Your task to perform on an android device: open chrome and create a bookmark for the current page Image 0: 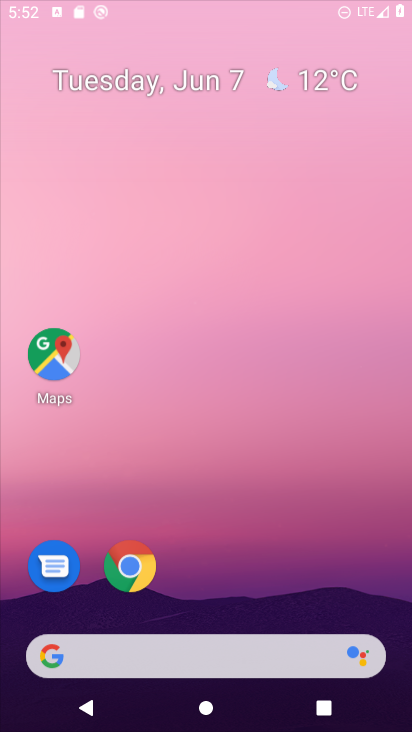
Step 0: click (376, 13)
Your task to perform on an android device: open chrome and create a bookmark for the current page Image 1: 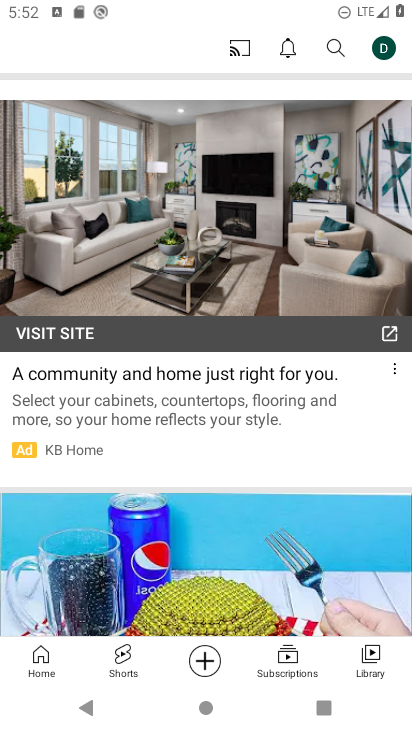
Step 1: press home button
Your task to perform on an android device: open chrome and create a bookmark for the current page Image 2: 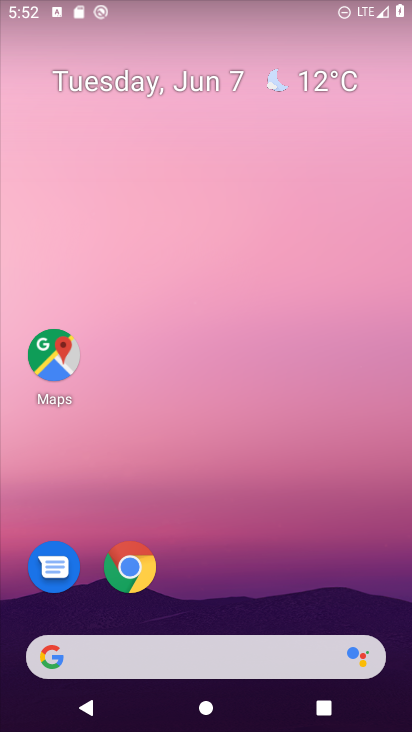
Step 2: drag from (186, 677) to (290, 75)
Your task to perform on an android device: open chrome and create a bookmark for the current page Image 3: 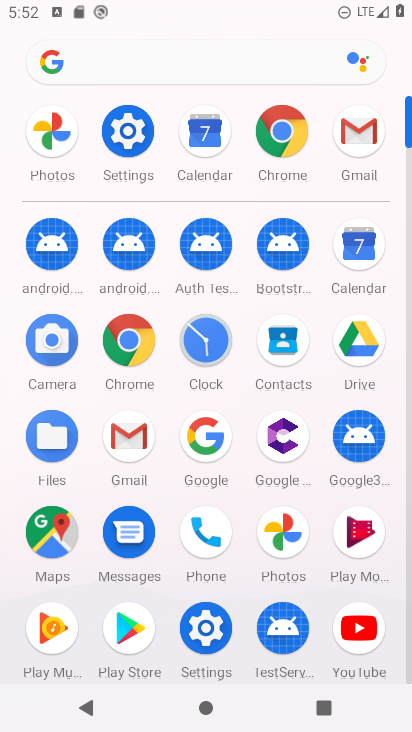
Step 3: click (139, 350)
Your task to perform on an android device: open chrome and create a bookmark for the current page Image 4: 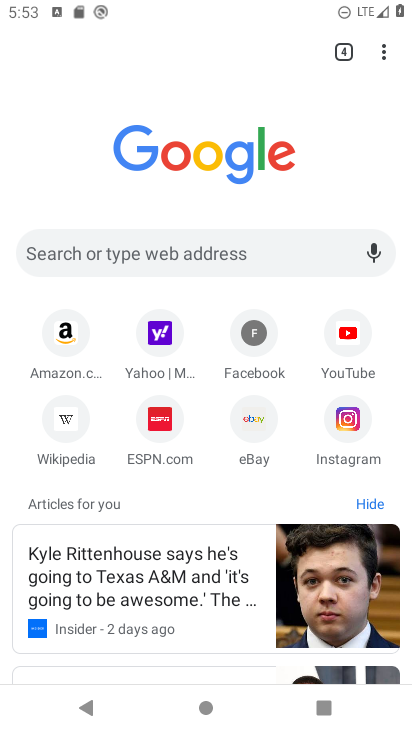
Step 4: click (373, 40)
Your task to perform on an android device: open chrome and create a bookmark for the current page Image 5: 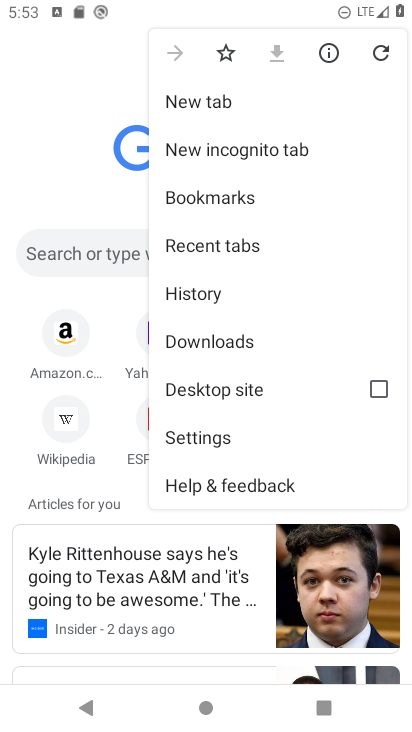
Step 5: click (255, 196)
Your task to perform on an android device: open chrome and create a bookmark for the current page Image 6: 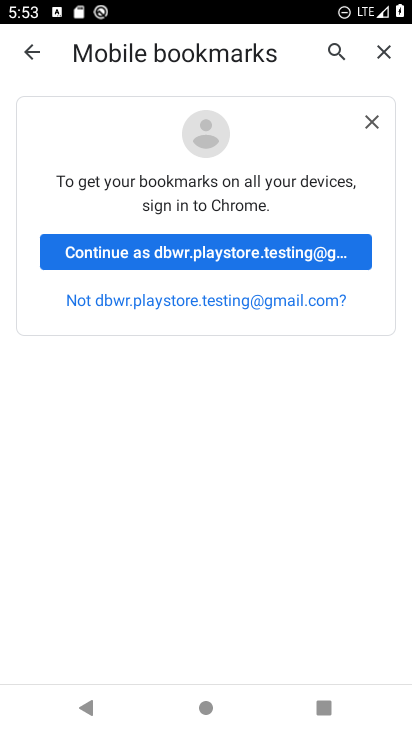
Step 6: task complete